Your task to perform on an android device: What's the weather? Image 0: 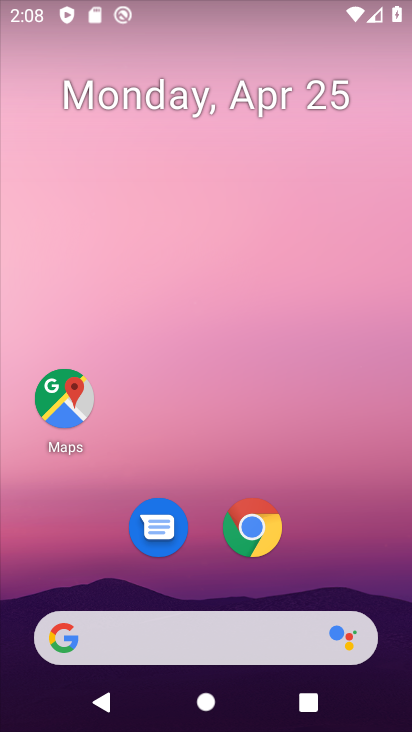
Step 0: drag from (342, 571) to (294, 73)
Your task to perform on an android device: What's the weather? Image 1: 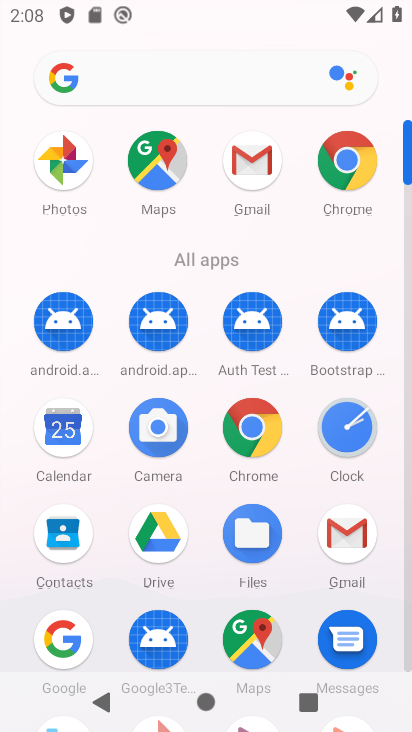
Step 1: drag from (197, 261) to (181, 135)
Your task to perform on an android device: What's the weather? Image 2: 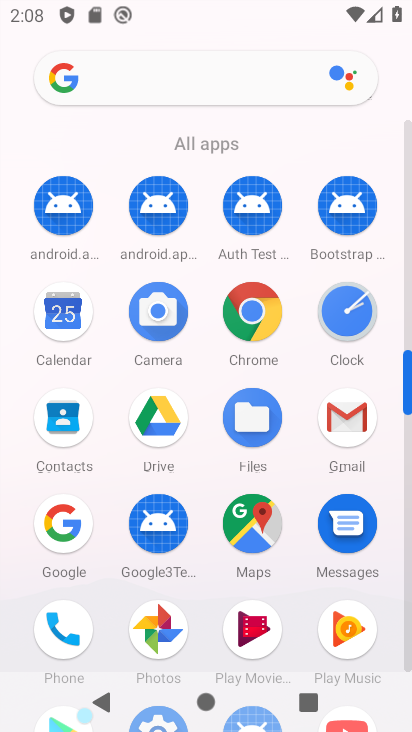
Step 2: drag from (296, 600) to (299, 304)
Your task to perform on an android device: What's the weather? Image 3: 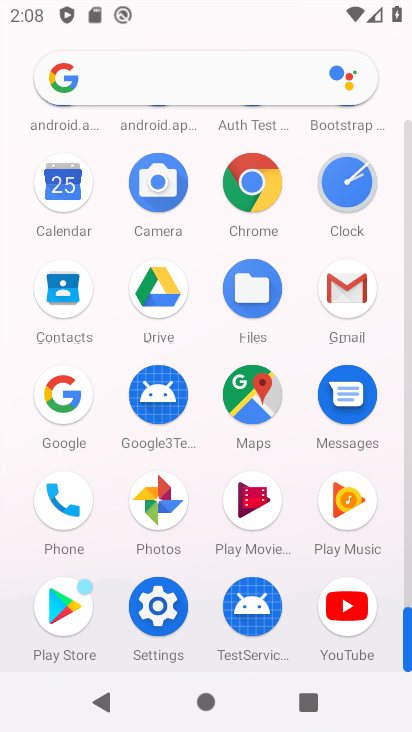
Step 3: drag from (268, 246) to (268, 615)
Your task to perform on an android device: What's the weather? Image 4: 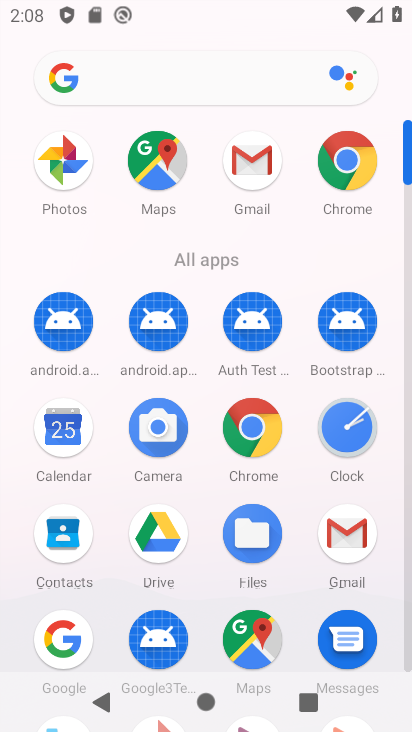
Step 4: press home button
Your task to perform on an android device: What's the weather? Image 5: 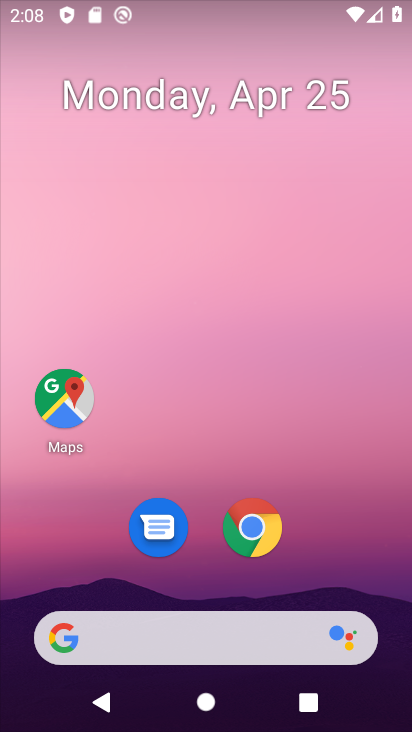
Step 5: drag from (14, 243) to (410, 202)
Your task to perform on an android device: What's the weather? Image 6: 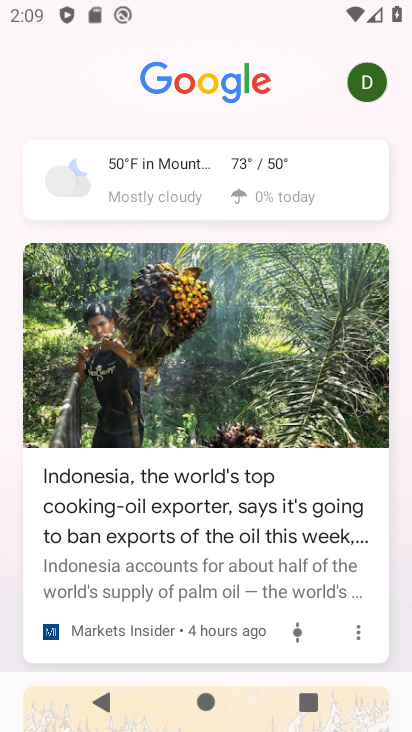
Step 6: click (277, 171)
Your task to perform on an android device: What's the weather? Image 7: 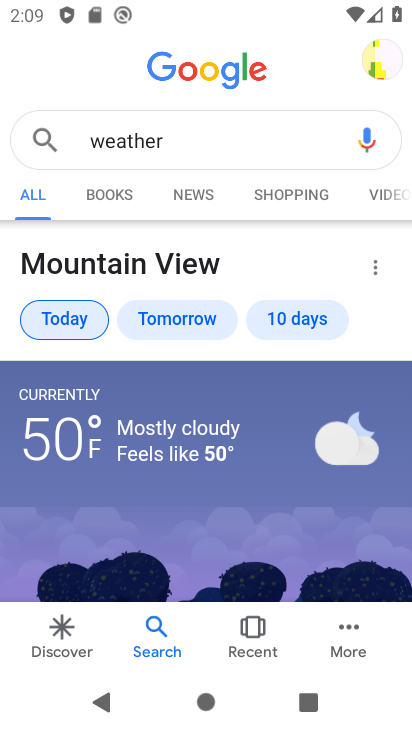
Step 7: task complete